Your task to perform on an android device: open a bookmark in the chrome app Image 0: 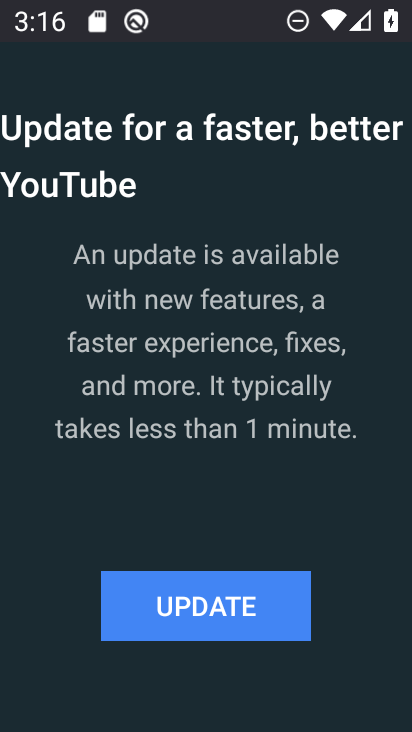
Step 0: press home button
Your task to perform on an android device: open a bookmark in the chrome app Image 1: 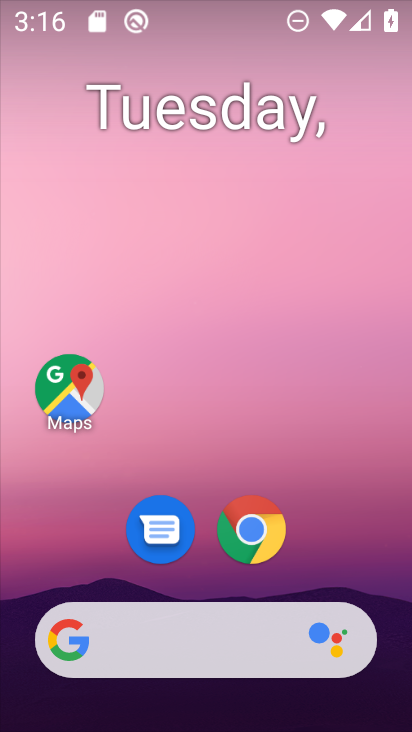
Step 1: click (256, 522)
Your task to perform on an android device: open a bookmark in the chrome app Image 2: 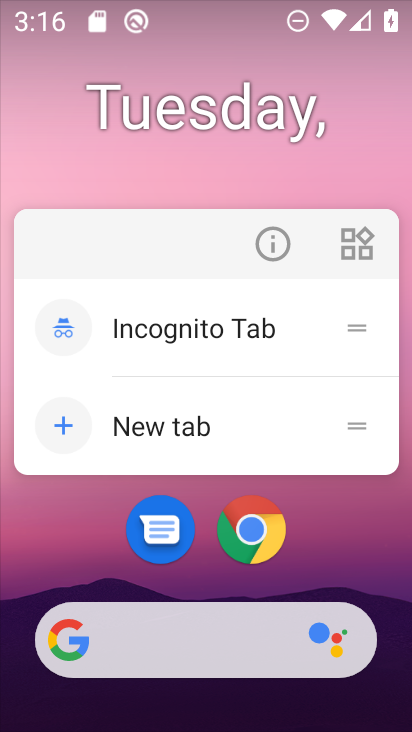
Step 2: click (256, 522)
Your task to perform on an android device: open a bookmark in the chrome app Image 3: 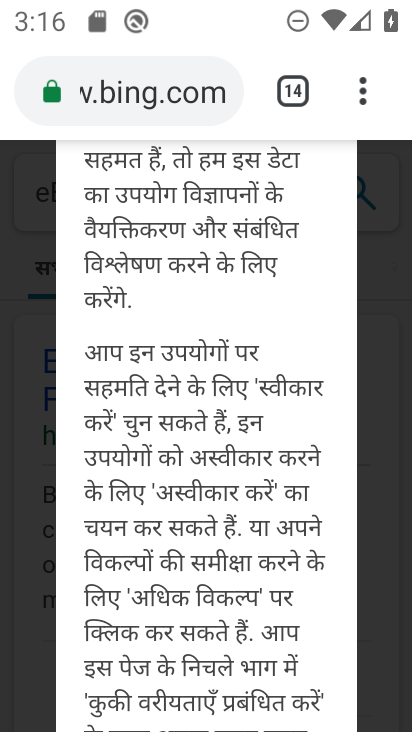
Step 3: click (360, 83)
Your task to perform on an android device: open a bookmark in the chrome app Image 4: 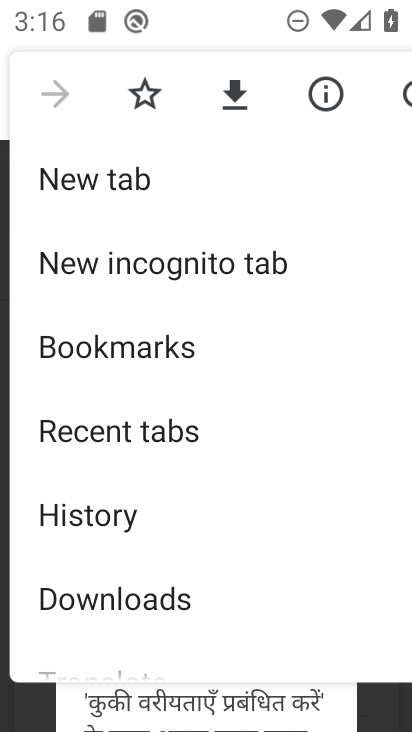
Step 4: click (173, 362)
Your task to perform on an android device: open a bookmark in the chrome app Image 5: 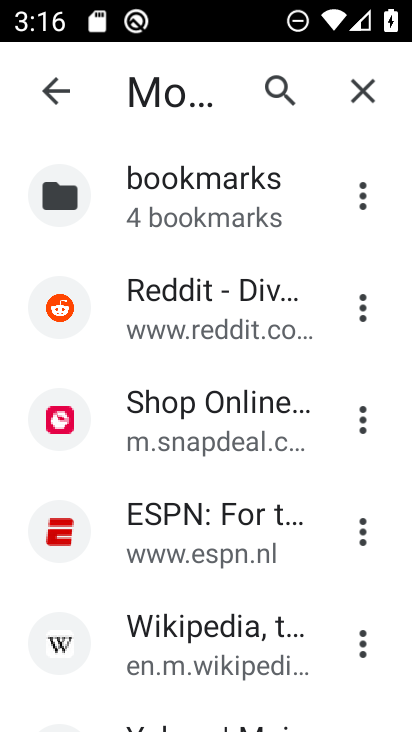
Step 5: task complete